Your task to perform on an android device: Open display settings Image 0: 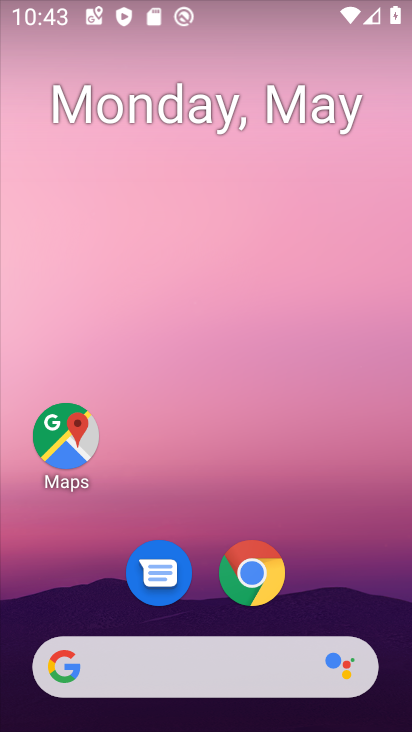
Step 0: drag from (170, 565) to (318, 32)
Your task to perform on an android device: Open display settings Image 1: 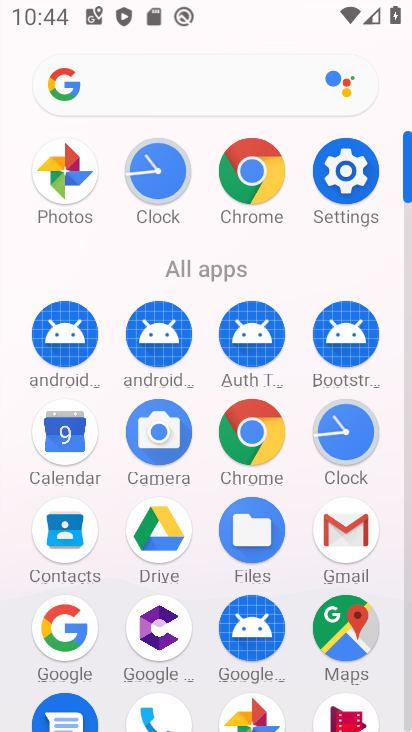
Step 1: click (335, 176)
Your task to perform on an android device: Open display settings Image 2: 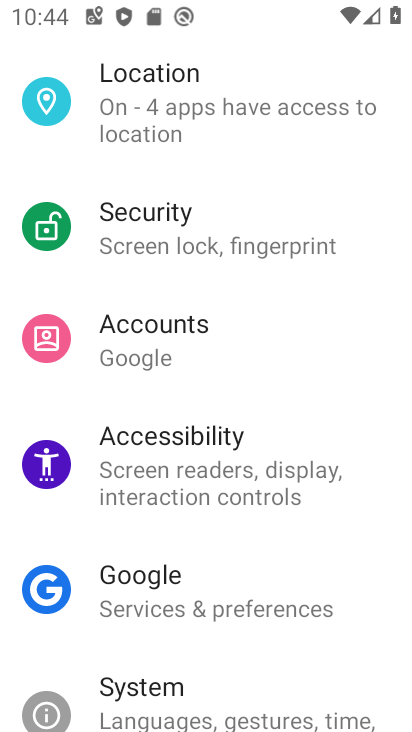
Step 2: drag from (199, 574) to (347, 47)
Your task to perform on an android device: Open display settings Image 3: 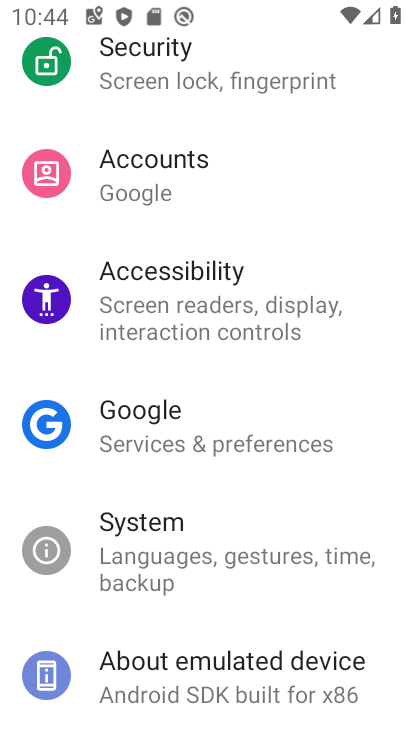
Step 3: drag from (191, 140) to (173, 717)
Your task to perform on an android device: Open display settings Image 4: 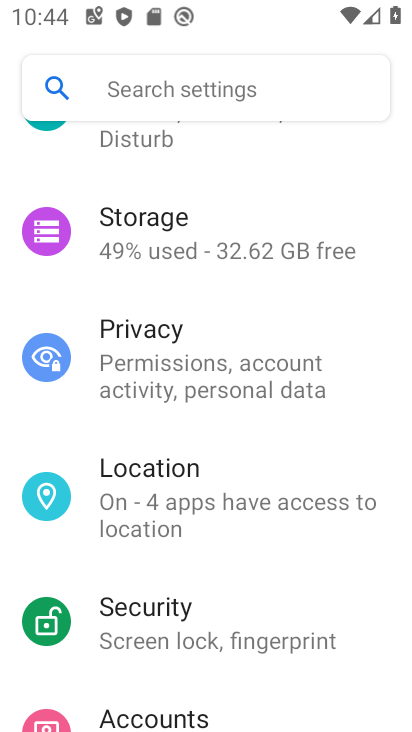
Step 4: drag from (175, 207) to (171, 695)
Your task to perform on an android device: Open display settings Image 5: 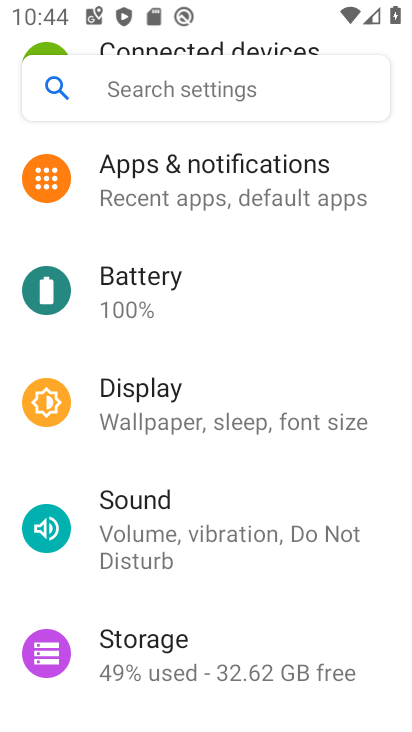
Step 5: click (151, 405)
Your task to perform on an android device: Open display settings Image 6: 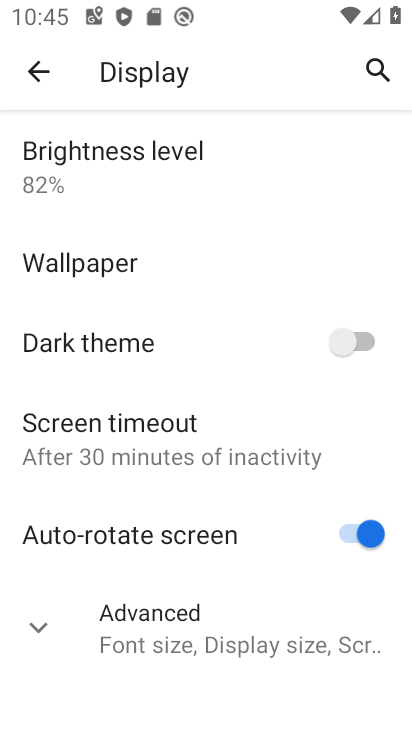
Step 6: task complete